Your task to perform on an android device: change text size in settings app Image 0: 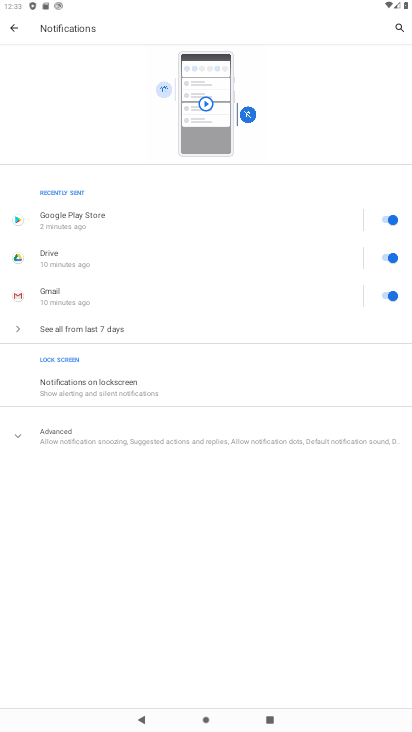
Step 0: press home button
Your task to perform on an android device: change text size in settings app Image 1: 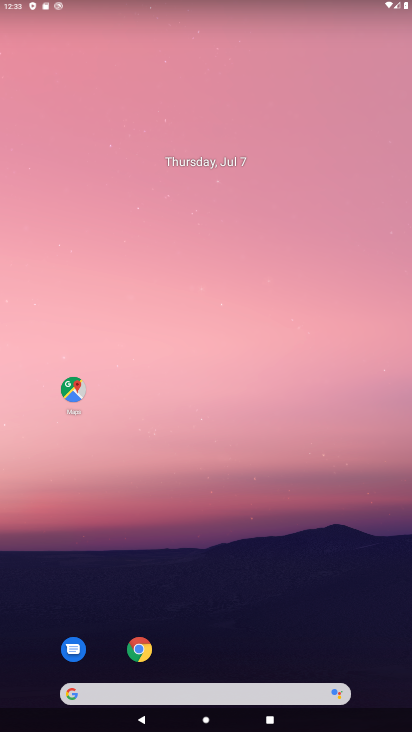
Step 1: drag from (226, 667) to (128, 19)
Your task to perform on an android device: change text size in settings app Image 2: 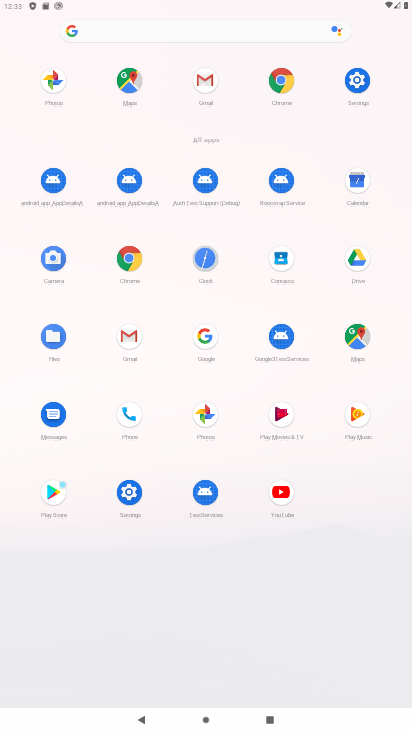
Step 2: click (117, 489)
Your task to perform on an android device: change text size in settings app Image 3: 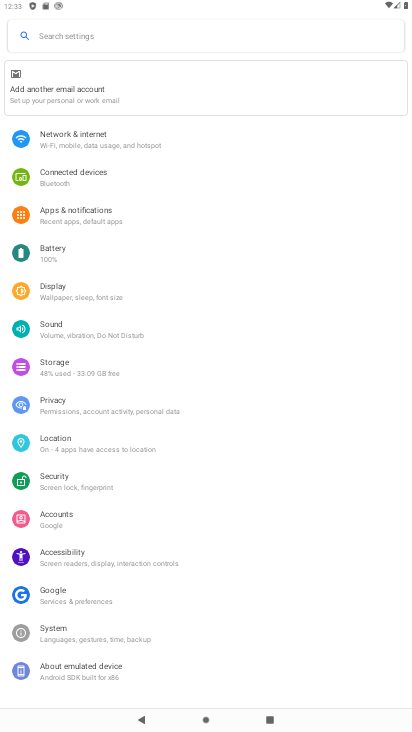
Step 3: click (47, 293)
Your task to perform on an android device: change text size in settings app Image 4: 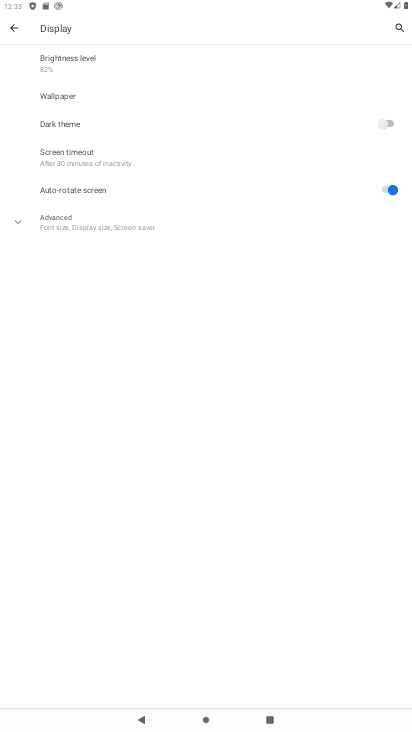
Step 4: click (67, 225)
Your task to perform on an android device: change text size in settings app Image 5: 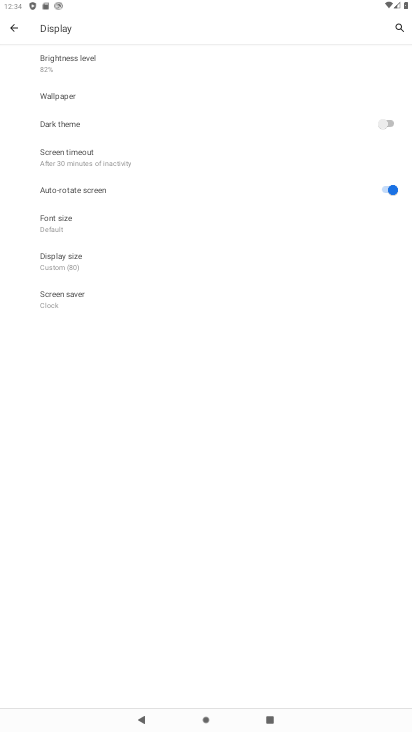
Step 5: click (68, 232)
Your task to perform on an android device: change text size in settings app Image 6: 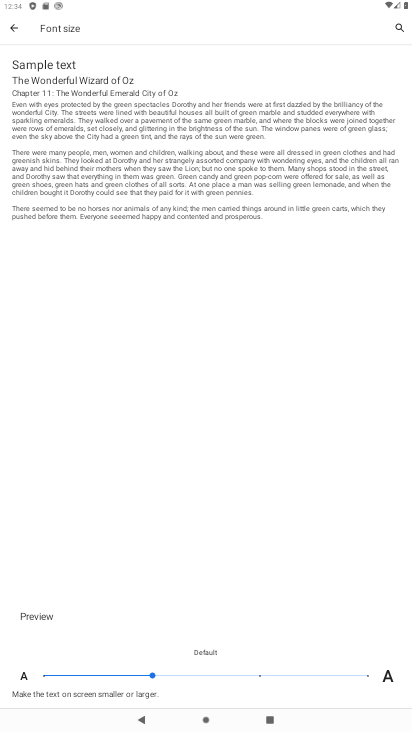
Step 6: click (252, 677)
Your task to perform on an android device: change text size in settings app Image 7: 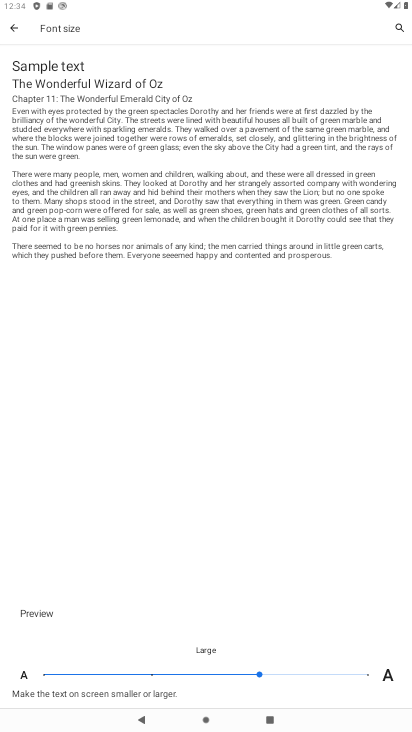
Step 7: task complete